Your task to perform on an android device: Open notification settings Image 0: 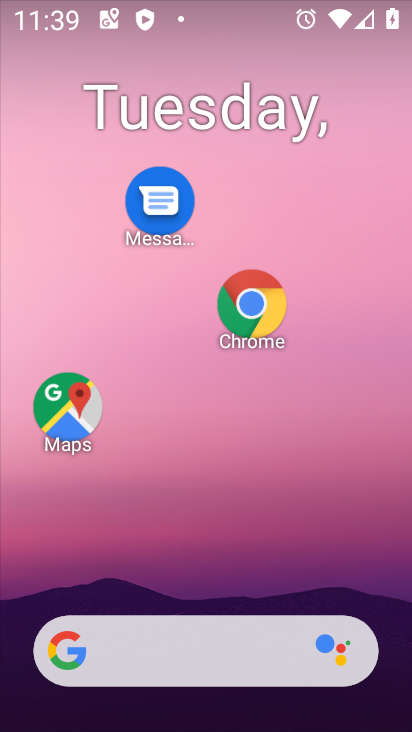
Step 0: drag from (252, 515) to (303, 178)
Your task to perform on an android device: Open notification settings Image 1: 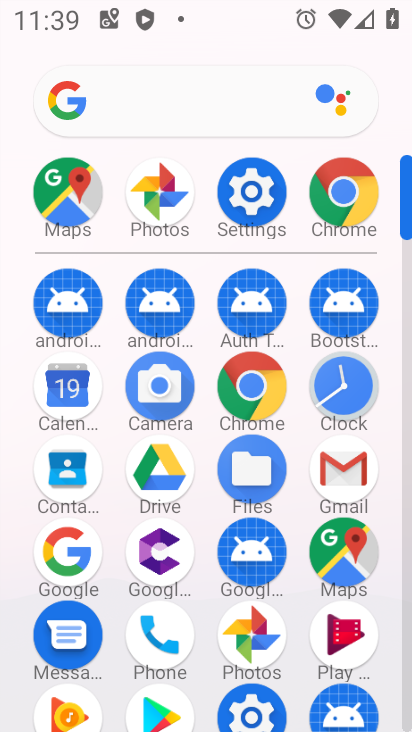
Step 1: click (242, 187)
Your task to perform on an android device: Open notification settings Image 2: 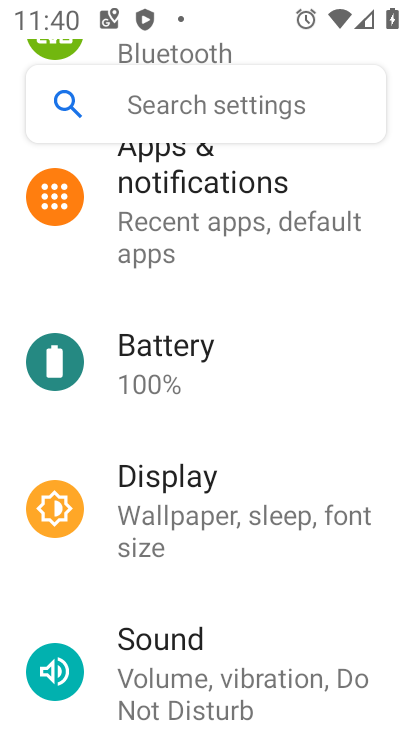
Step 2: drag from (232, 619) to (301, 165)
Your task to perform on an android device: Open notification settings Image 3: 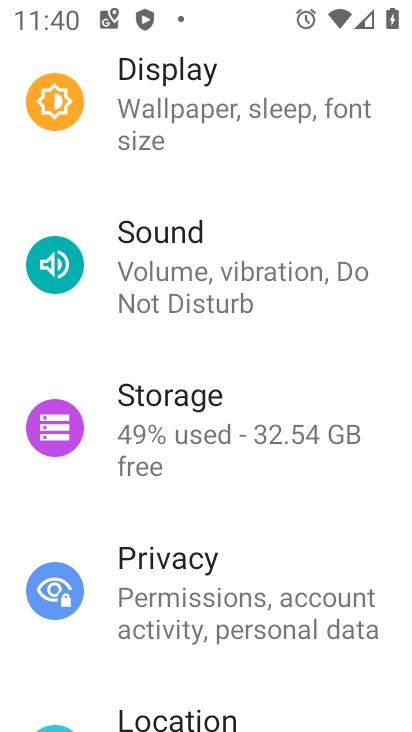
Step 3: drag from (225, 537) to (310, 104)
Your task to perform on an android device: Open notification settings Image 4: 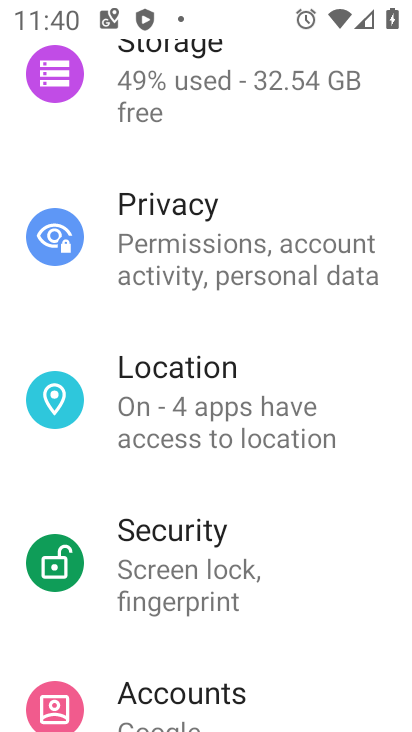
Step 4: click (279, 605)
Your task to perform on an android device: Open notification settings Image 5: 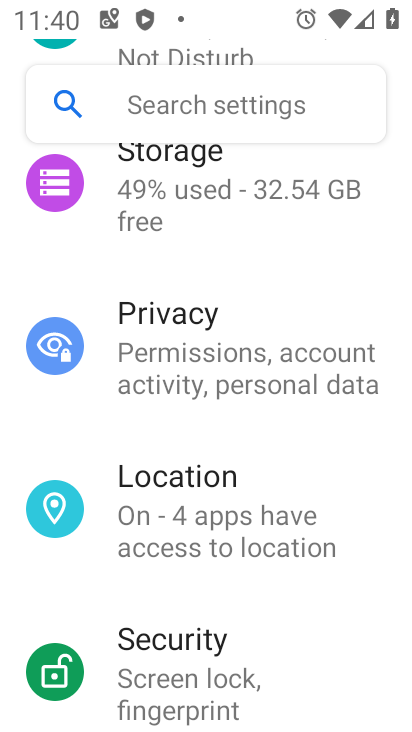
Step 5: task complete